Your task to perform on an android device: Go to ESPN.com Image 0: 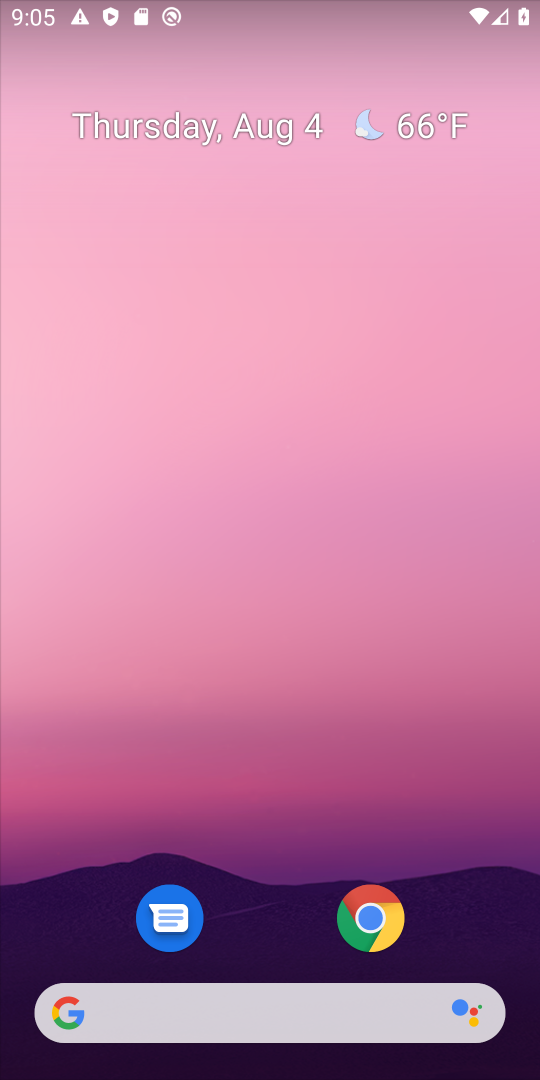
Step 0: drag from (283, 945) to (262, 93)
Your task to perform on an android device: Go to ESPN.com Image 1: 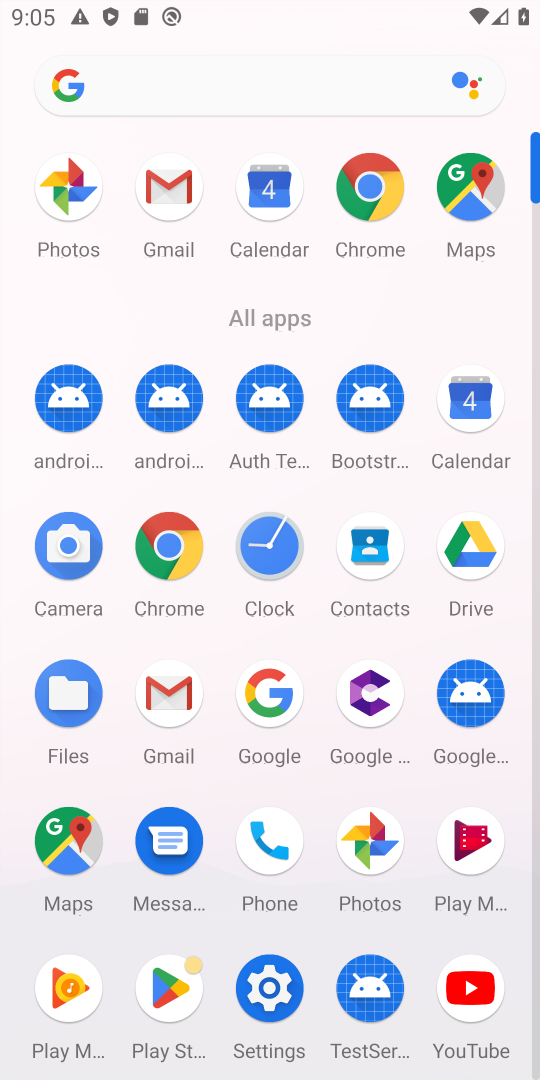
Step 1: click (166, 537)
Your task to perform on an android device: Go to ESPN.com Image 2: 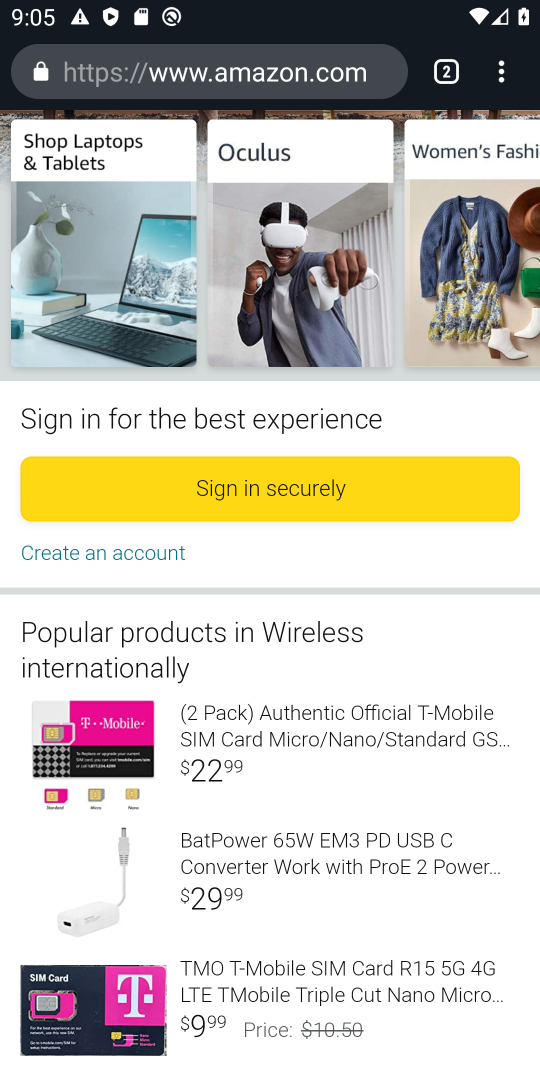
Step 2: click (441, 65)
Your task to perform on an android device: Go to ESPN.com Image 3: 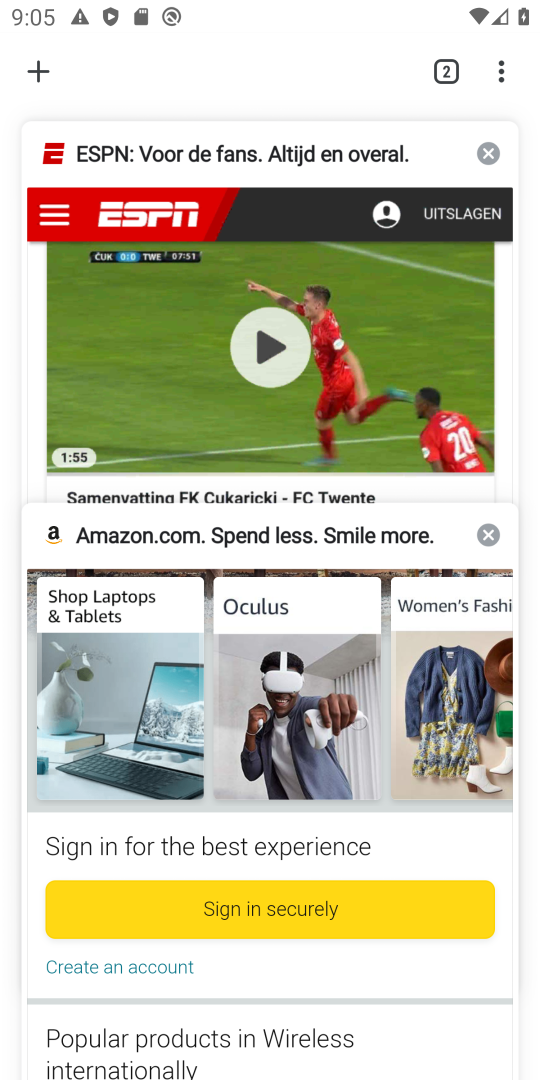
Step 3: click (205, 409)
Your task to perform on an android device: Go to ESPN.com Image 4: 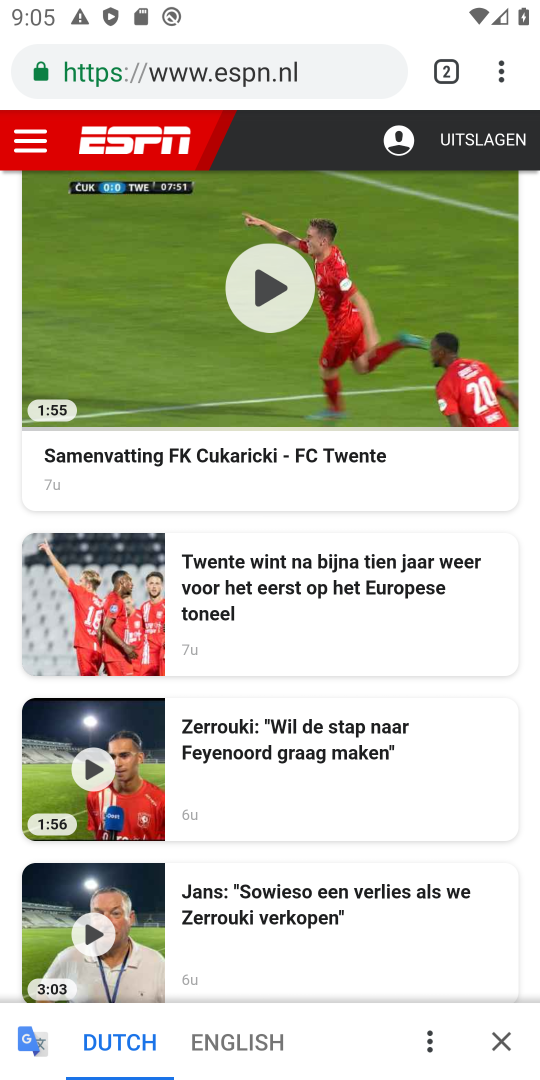
Step 4: task complete